Your task to perform on an android device: Open Google Chrome and open the bookmarks view Image 0: 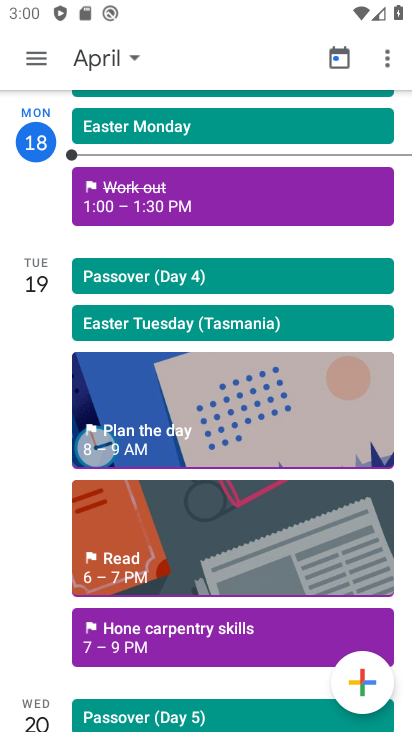
Step 0: press home button
Your task to perform on an android device: Open Google Chrome and open the bookmarks view Image 1: 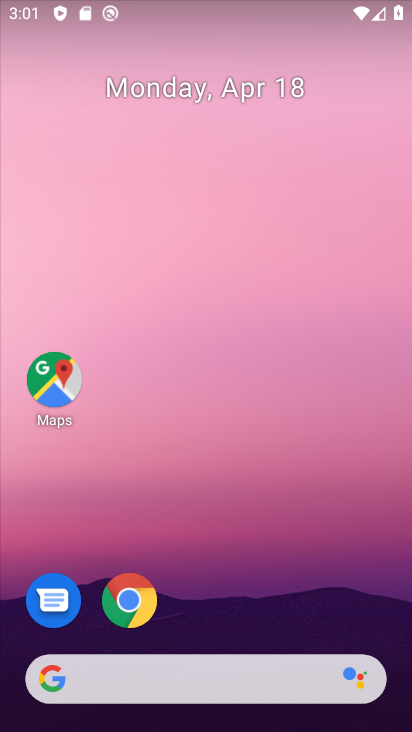
Step 1: drag from (163, 597) to (311, 76)
Your task to perform on an android device: Open Google Chrome and open the bookmarks view Image 2: 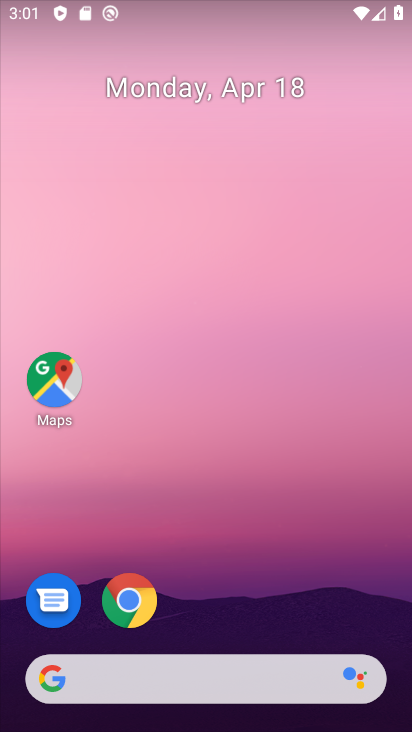
Step 2: drag from (234, 676) to (349, 169)
Your task to perform on an android device: Open Google Chrome and open the bookmarks view Image 3: 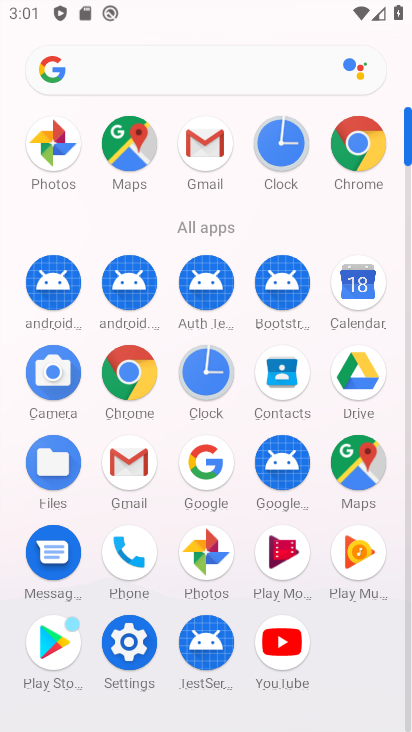
Step 3: click (363, 152)
Your task to perform on an android device: Open Google Chrome and open the bookmarks view Image 4: 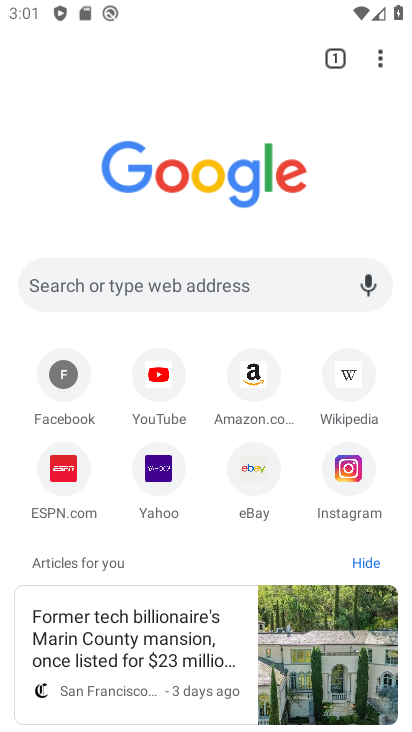
Step 4: click (382, 54)
Your task to perform on an android device: Open Google Chrome and open the bookmarks view Image 5: 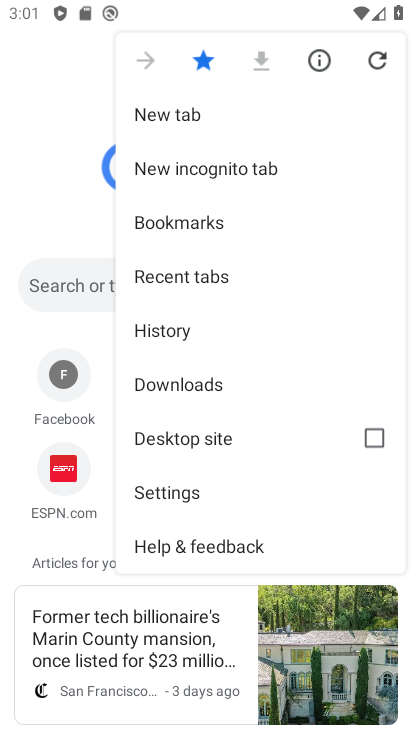
Step 5: click (211, 224)
Your task to perform on an android device: Open Google Chrome and open the bookmarks view Image 6: 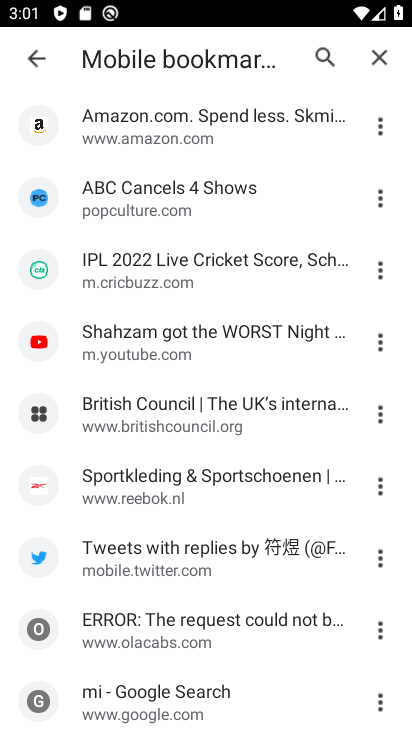
Step 6: task complete